Your task to perform on an android device: Open display settings Image 0: 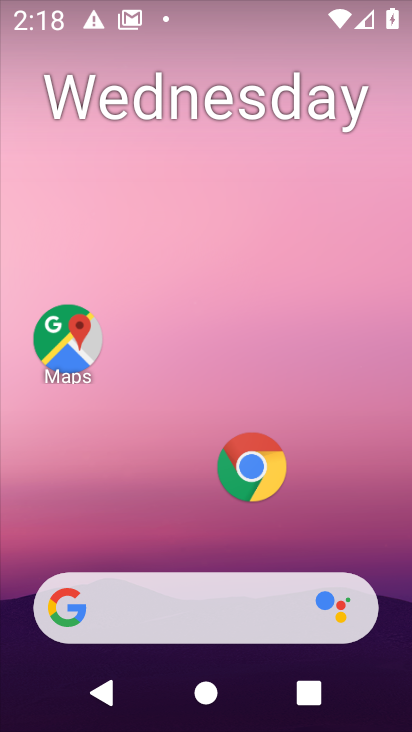
Step 0: drag from (173, 438) to (153, 65)
Your task to perform on an android device: Open display settings Image 1: 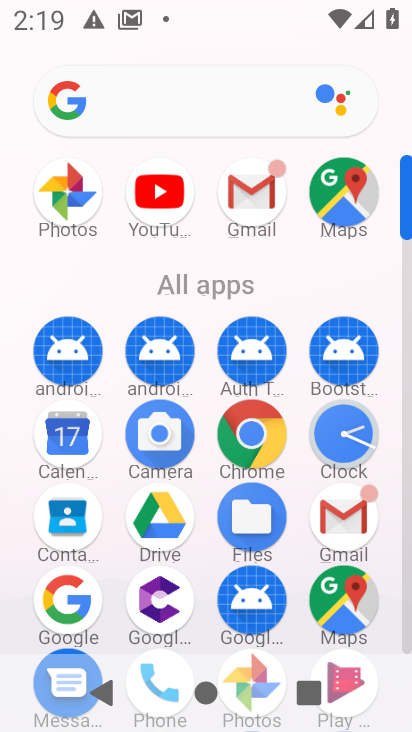
Step 1: drag from (189, 526) to (149, 255)
Your task to perform on an android device: Open display settings Image 2: 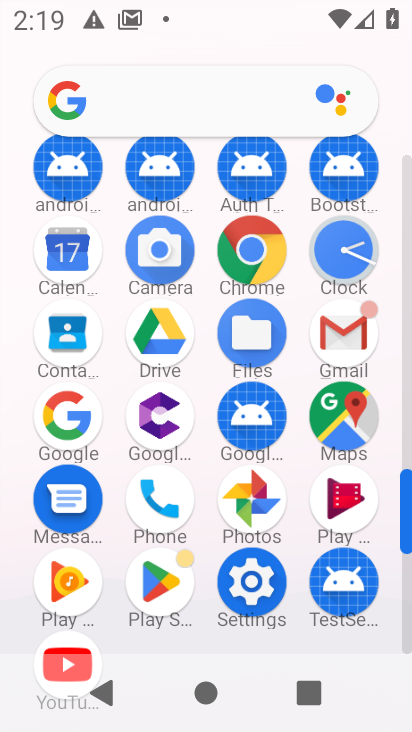
Step 2: click (259, 596)
Your task to perform on an android device: Open display settings Image 3: 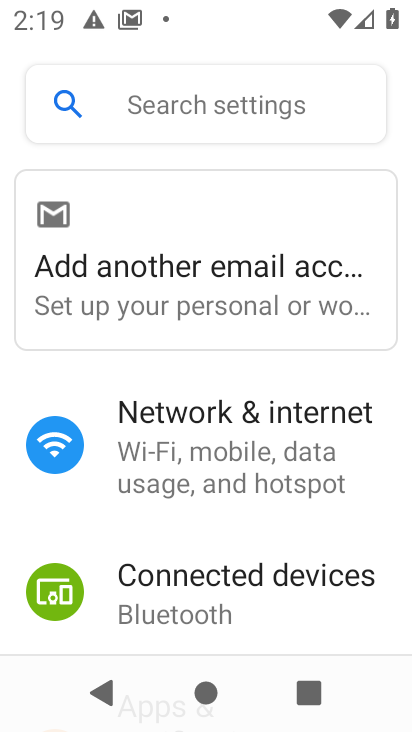
Step 3: task complete